Your task to perform on an android device: turn off improve location accuracy Image 0: 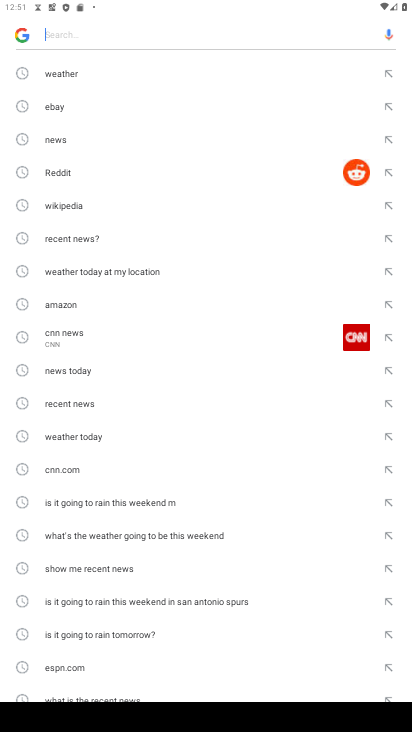
Step 0: press home button
Your task to perform on an android device: turn off improve location accuracy Image 1: 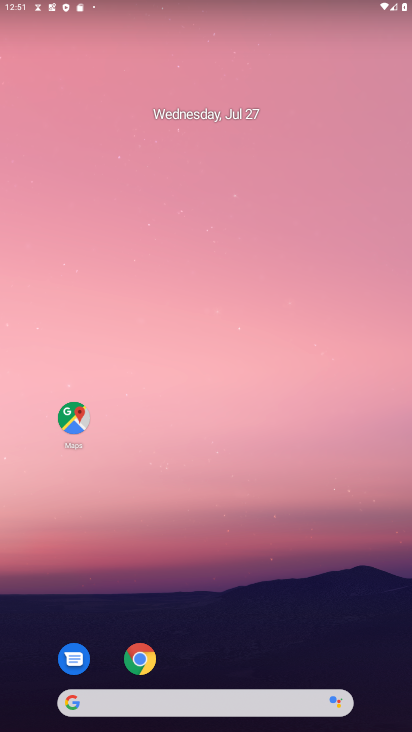
Step 1: drag from (203, 670) to (258, 131)
Your task to perform on an android device: turn off improve location accuracy Image 2: 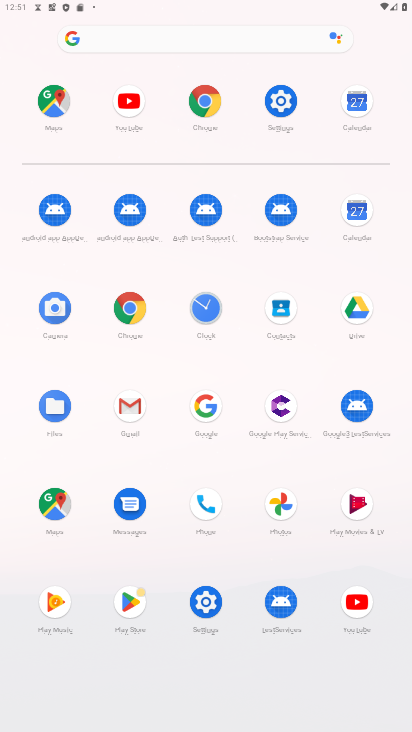
Step 2: click (279, 96)
Your task to perform on an android device: turn off improve location accuracy Image 3: 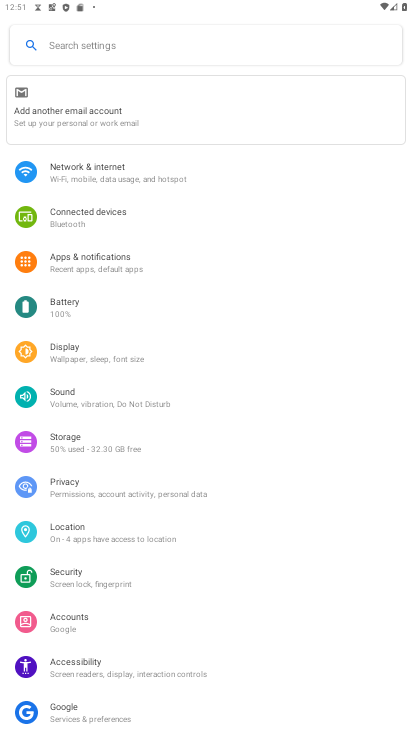
Step 3: click (86, 531)
Your task to perform on an android device: turn off improve location accuracy Image 4: 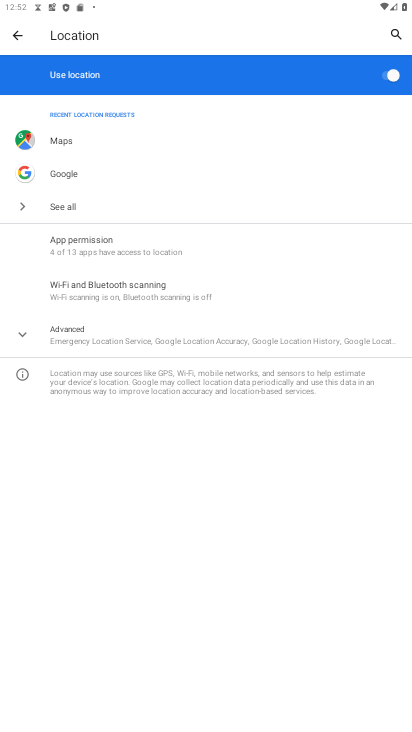
Step 4: click (32, 332)
Your task to perform on an android device: turn off improve location accuracy Image 5: 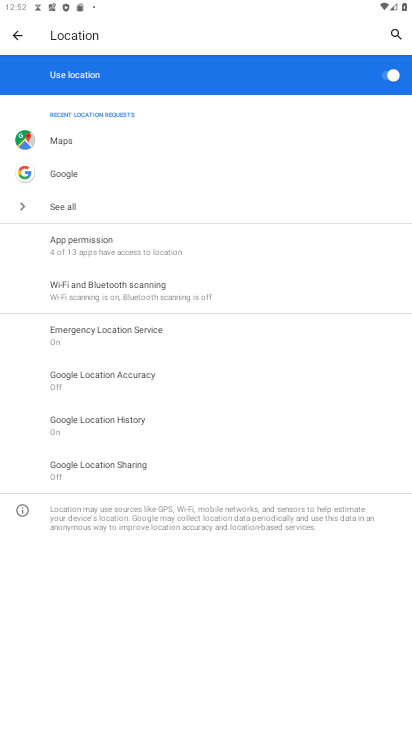
Step 5: click (122, 370)
Your task to perform on an android device: turn off improve location accuracy Image 6: 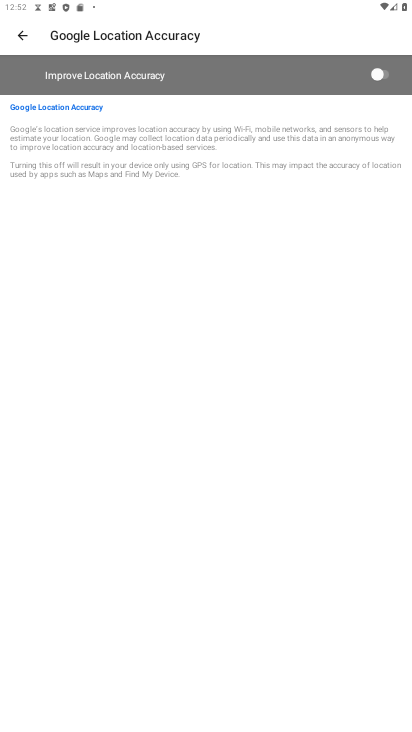
Step 6: task complete